Your task to perform on an android device: turn on data saver in the chrome app Image 0: 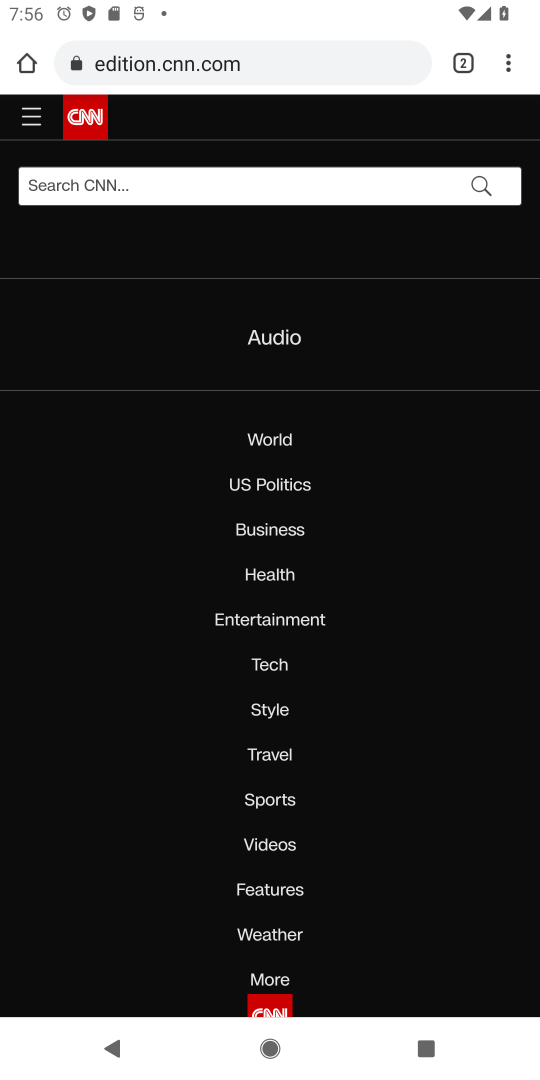
Step 0: drag from (507, 67) to (344, 824)
Your task to perform on an android device: turn on data saver in the chrome app Image 1: 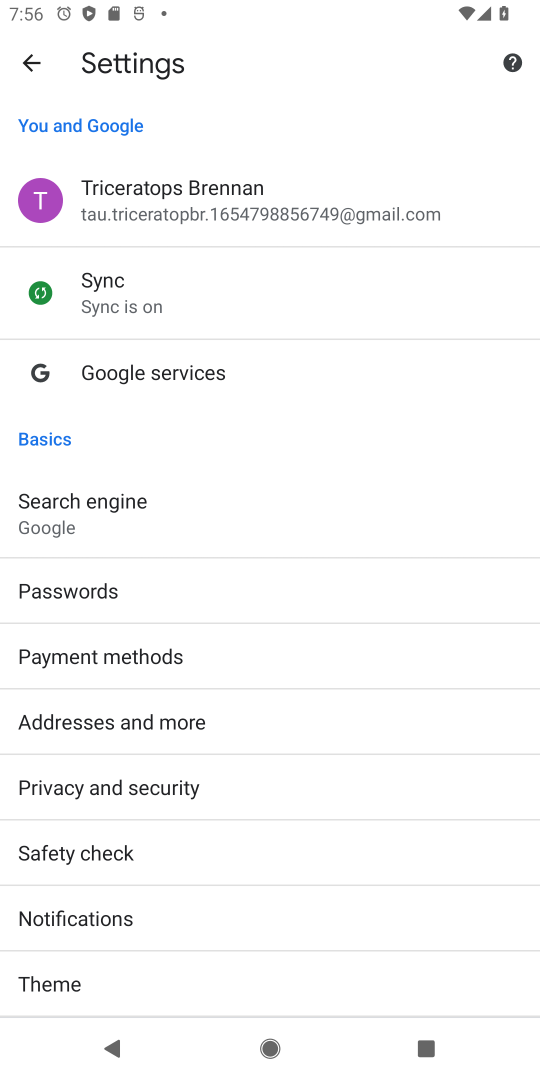
Step 1: drag from (108, 938) to (203, 57)
Your task to perform on an android device: turn on data saver in the chrome app Image 2: 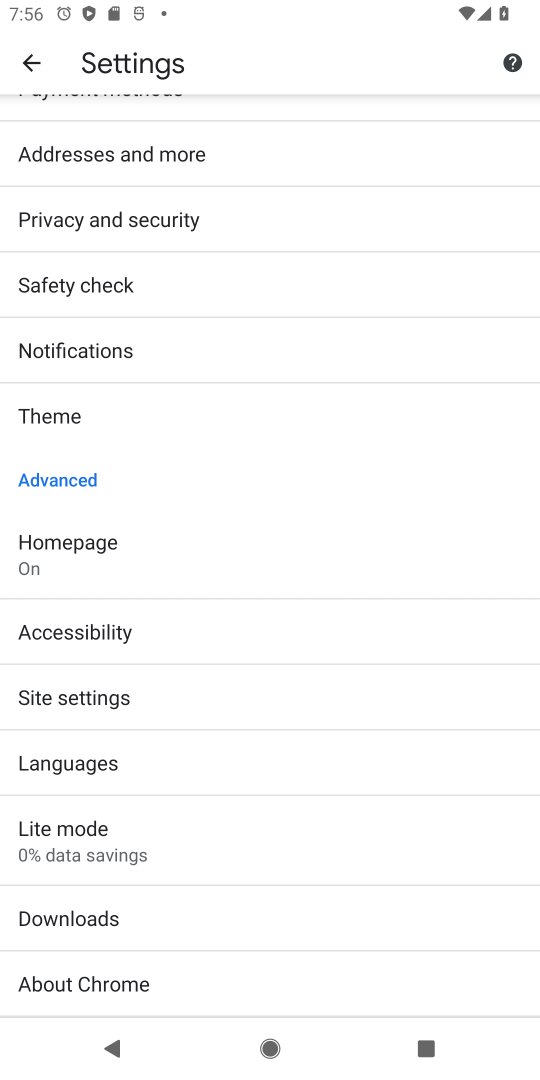
Step 2: click (95, 839)
Your task to perform on an android device: turn on data saver in the chrome app Image 3: 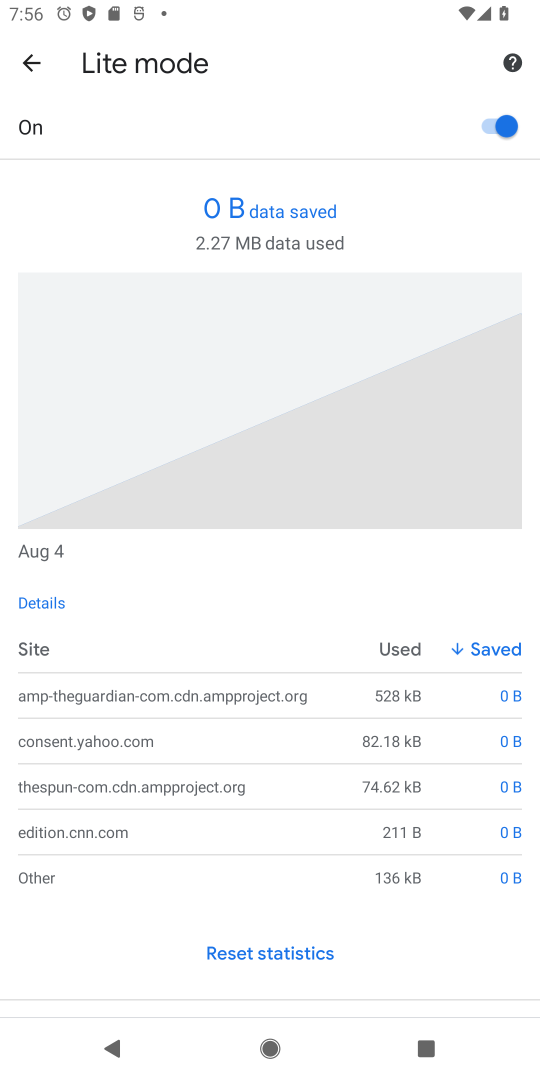
Step 3: task complete